Your task to perform on an android device: open device folders in google photos Image 0: 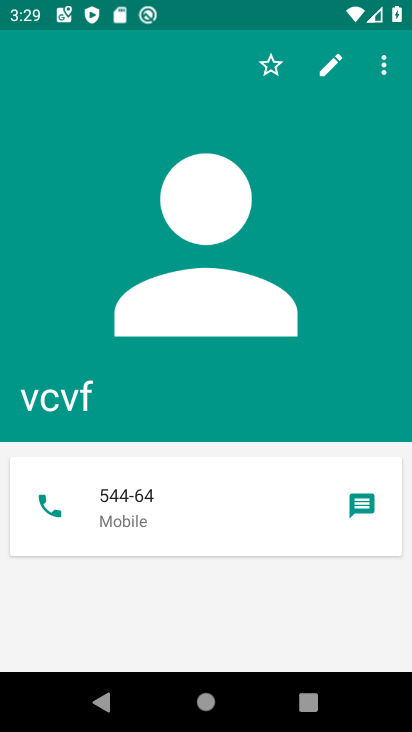
Step 0: press back button
Your task to perform on an android device: open device folders in google photos Image 1: 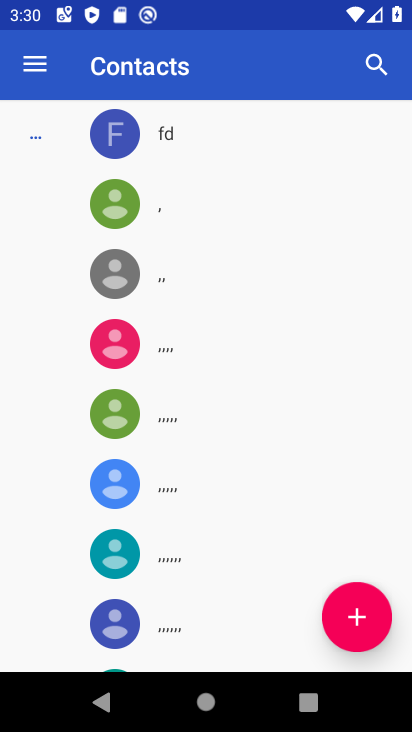
Step 1: press home button
Your task to perform on an android device: open device folders in google photos Image 2: 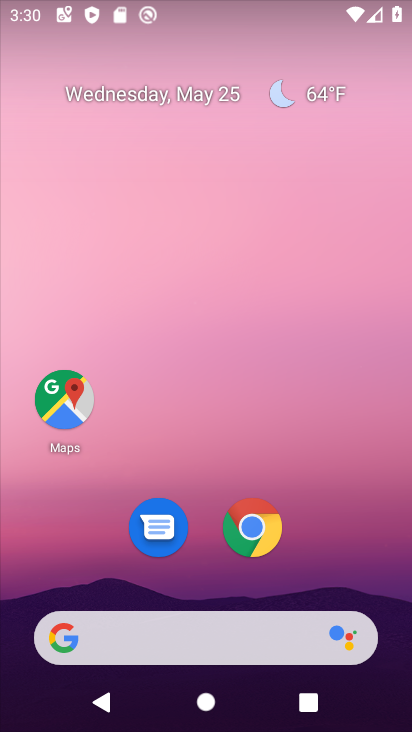
Step 2: drag from (201, 544) to (274, 13)
Your task to perform on an android device: open device folders in google photos Image 3: 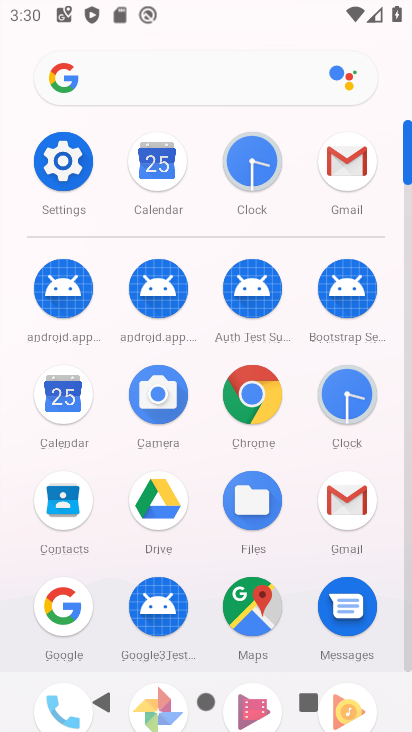
Step 3: drag from (161, 590) to (241, 157)
Your task to perform on an android device: open device folders in google photos Image 4: 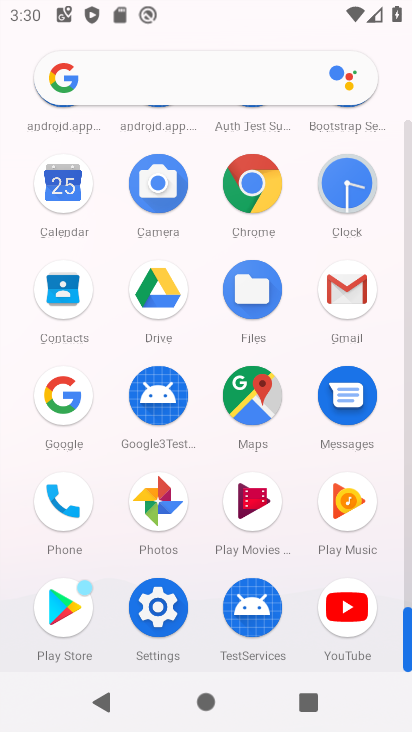
Step 4: click (161, 496)
Your task to perform on an android device: open device folders in google photos Image 5: 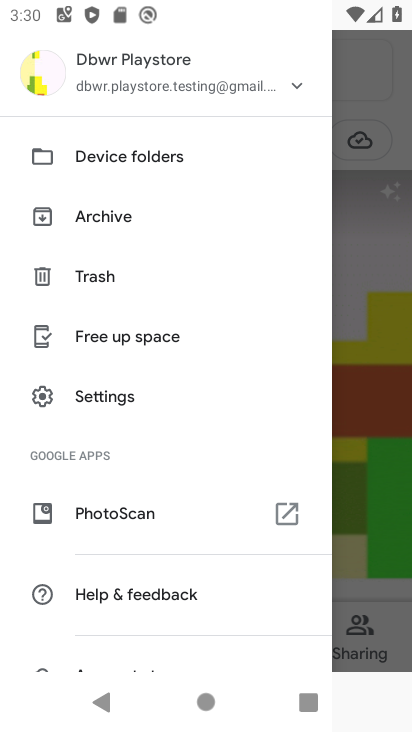
Step 5: click (124, 156)
Your task to perform on an android device: open device folders in google photos Image 6: 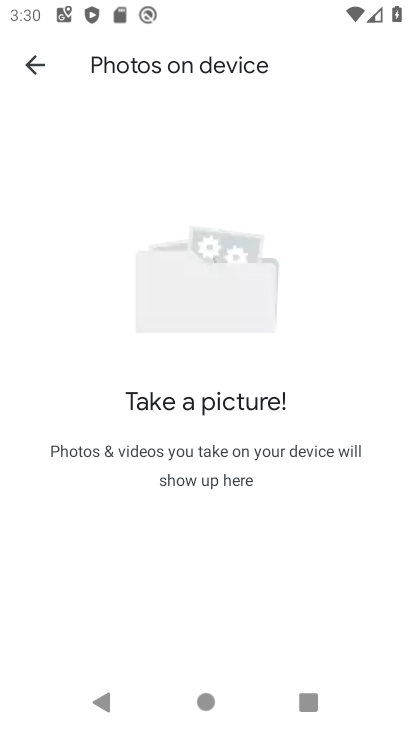
Step 6: task complete